Your task to perform on an android device: toggle airplane mode Image 0: 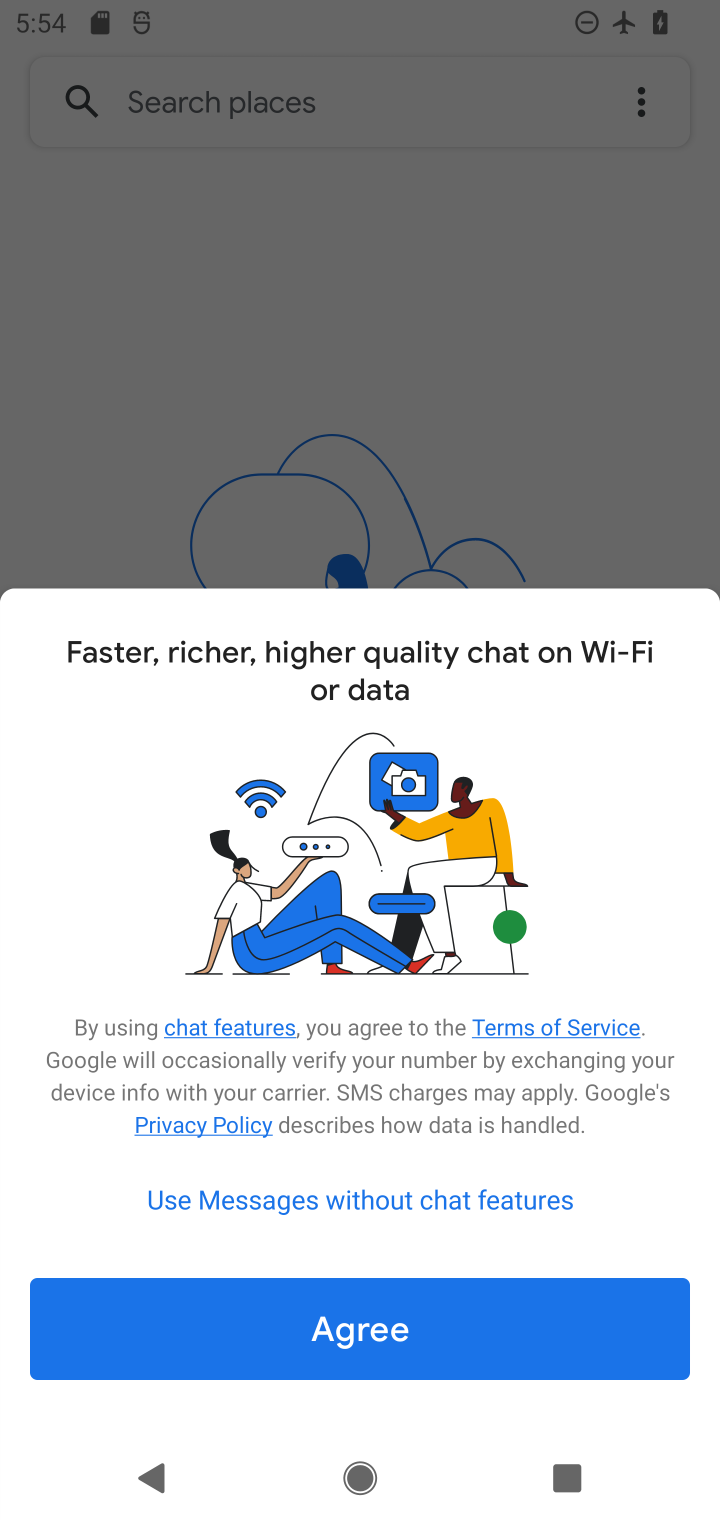
Step 0: press home button
Your task to perform on an android device: toggle airplane mode Image 1: 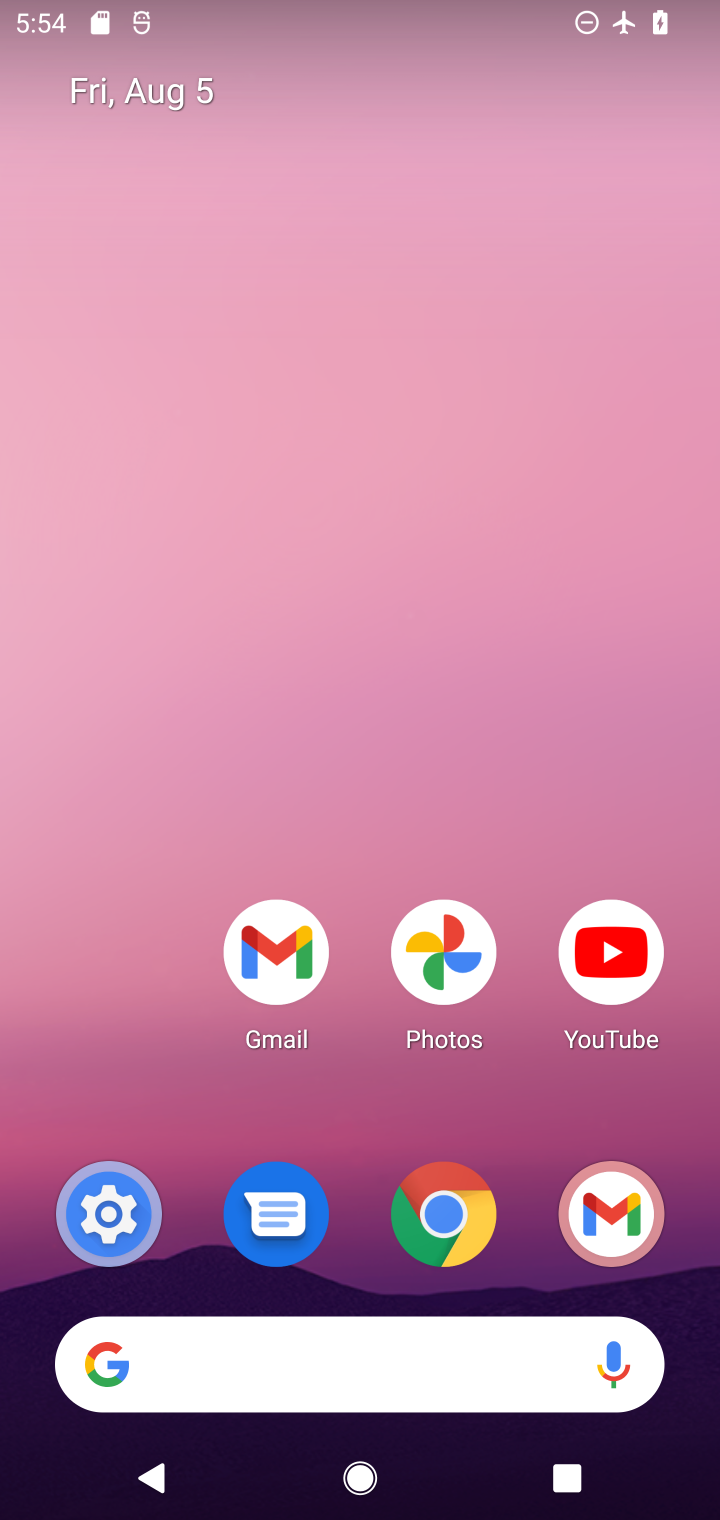
Step 1: click (99, 1200)
Your task to perform on an android device: toggle airplane mode Image 2: 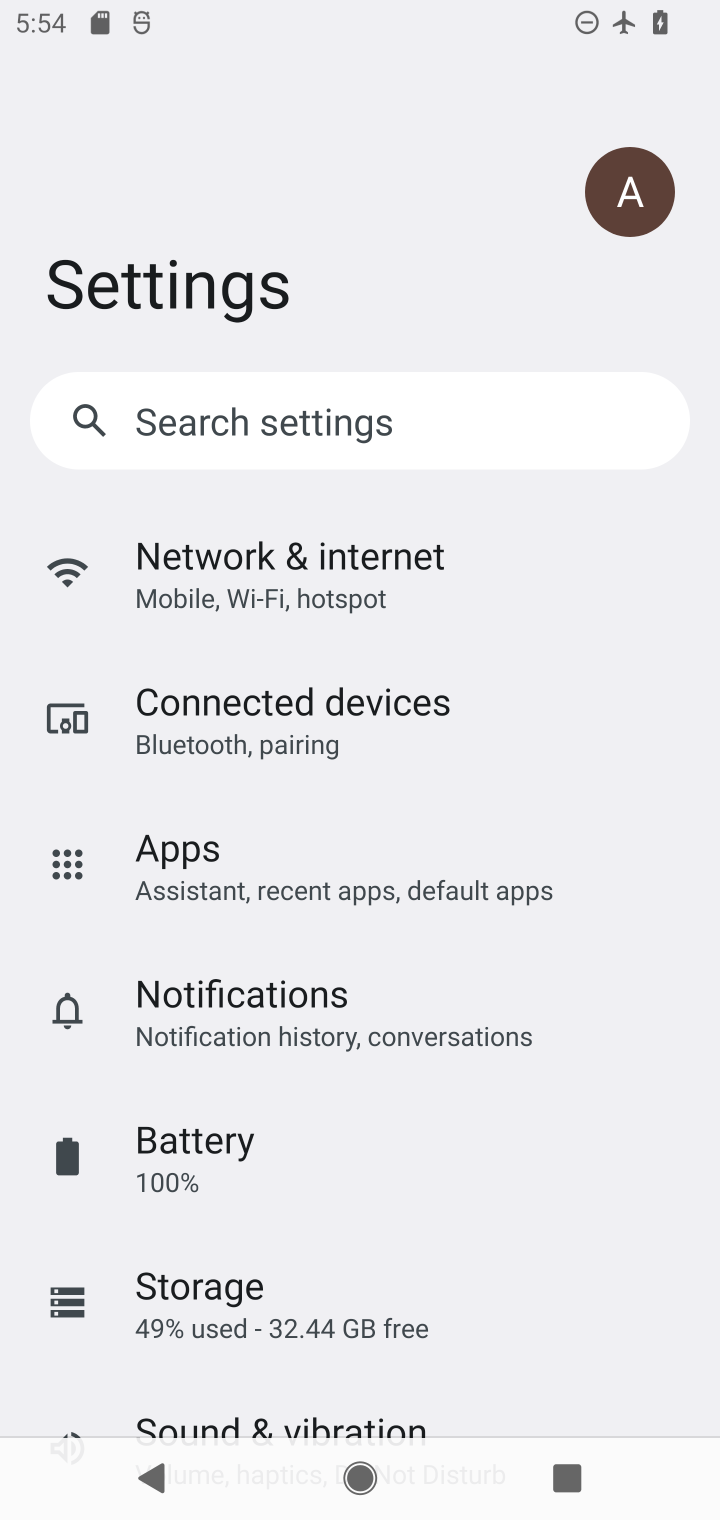
Step 2: click (322, 592)
Your task to perform on an android device: toggle airplane mode Image 3: 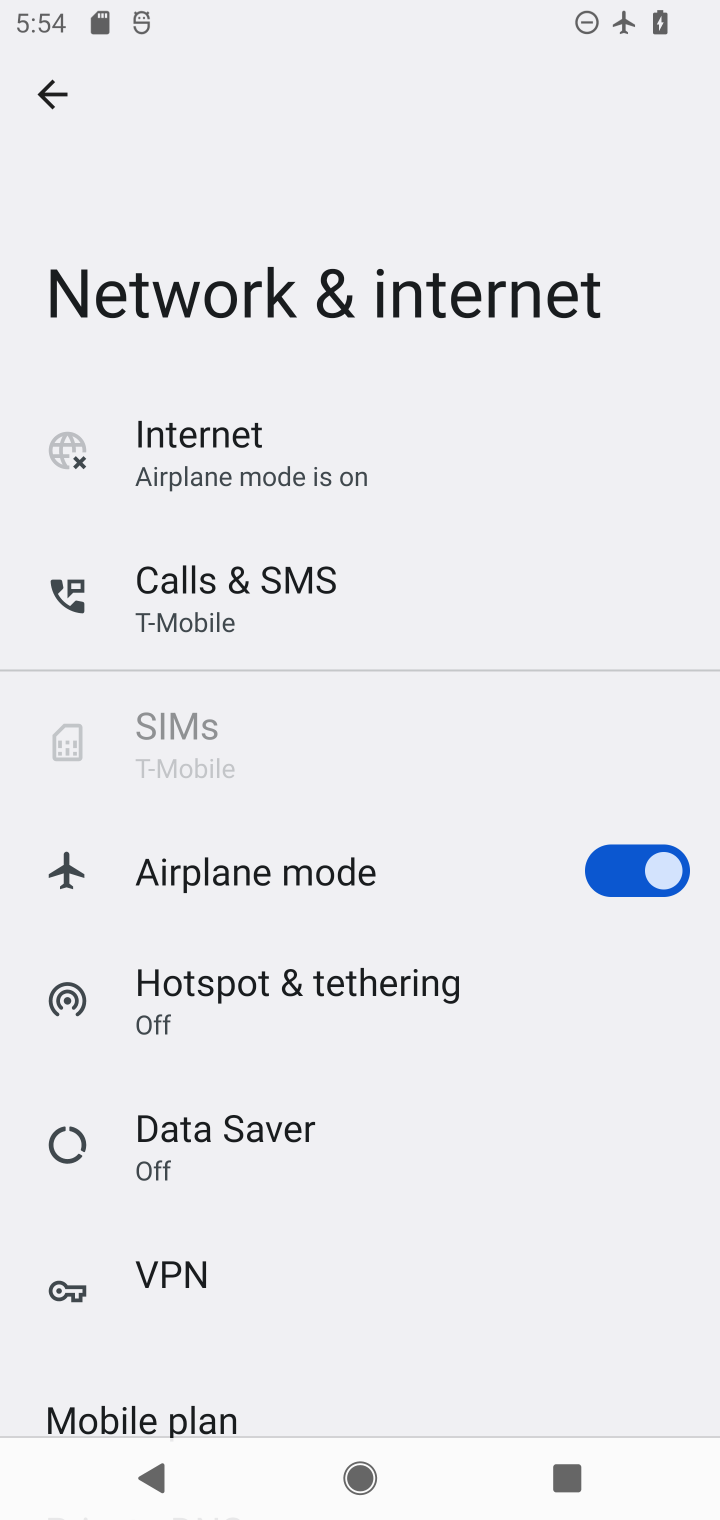
Step 3: click (626, 857)
Your task to perform on an android device: toggle airplane mode Image 4: 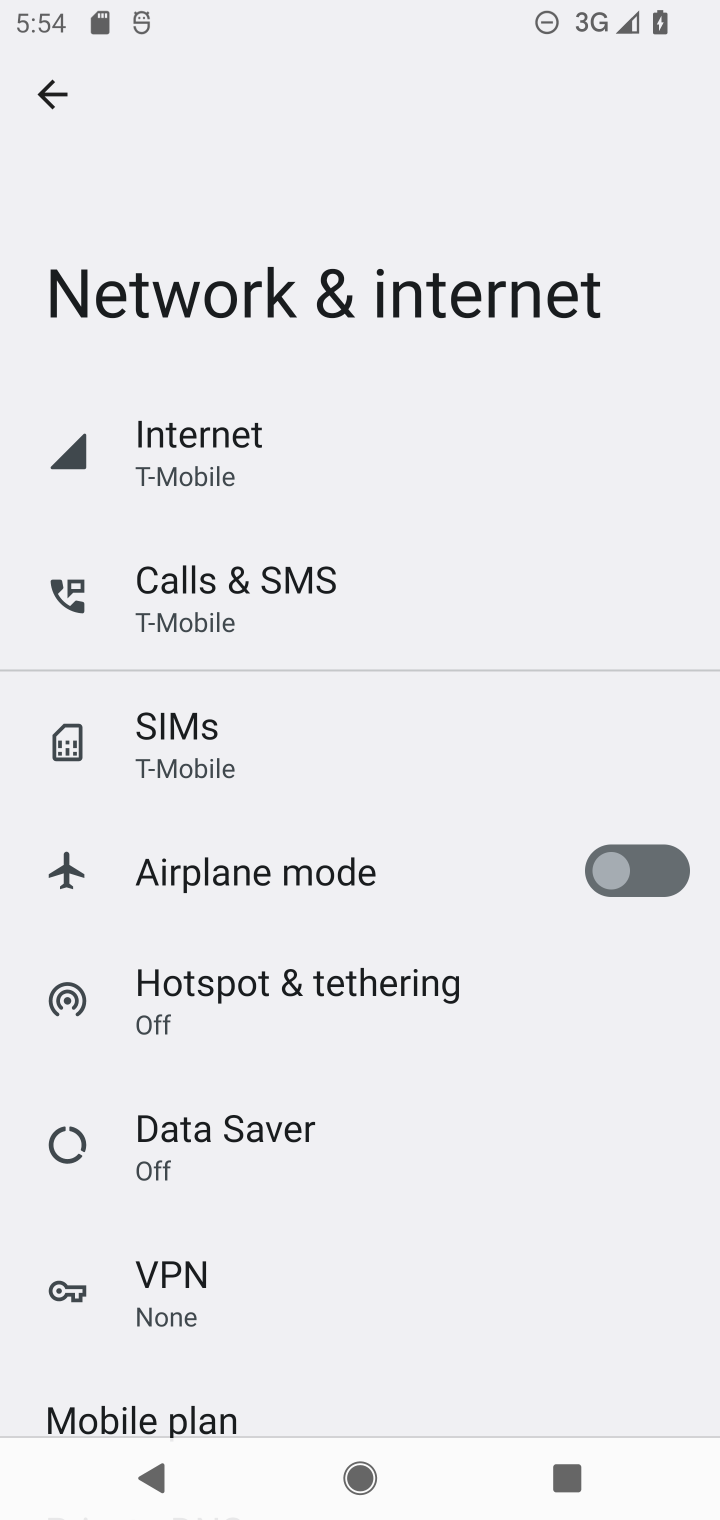
Step 4: task complete